Your task to perform on an android device: What's the weather today? Image 0: 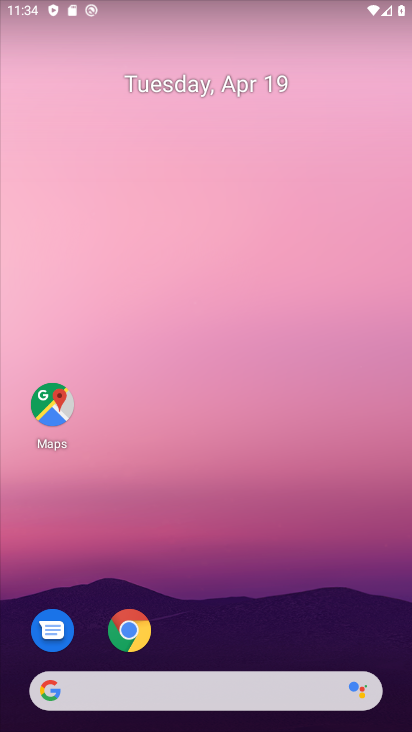
Step 0: drag from (293, 604) to (282, 59)
Your task to perform on an android device: What's the weather today? Image 1: 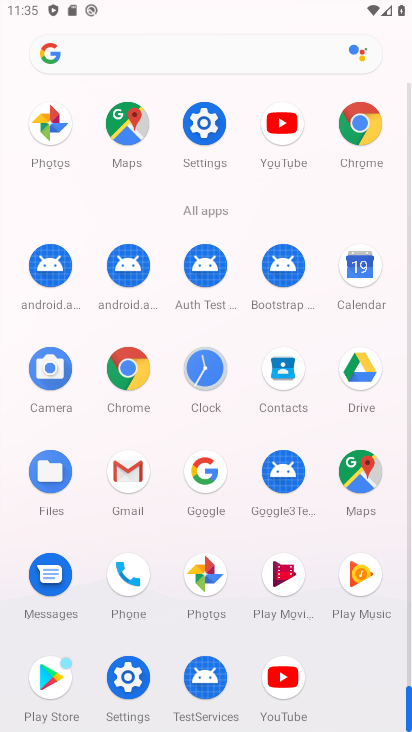
Step 1: click (138, 365)
Your task to perform on an android device: What's the weather today? Image 2: 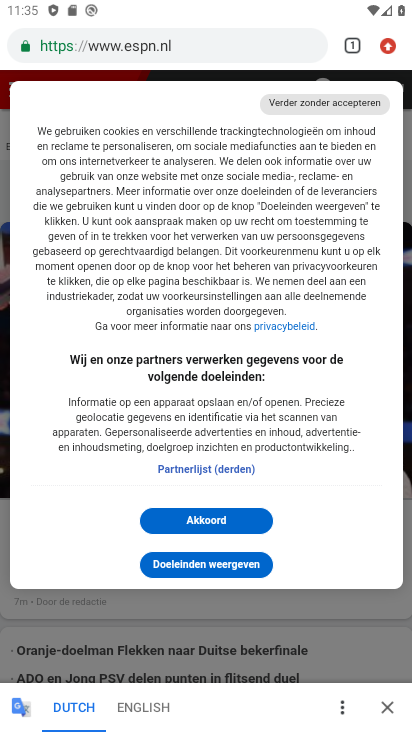
Step 2: click (217, 46)
Your task to perform on an android device: What's the weather today? Image 3: 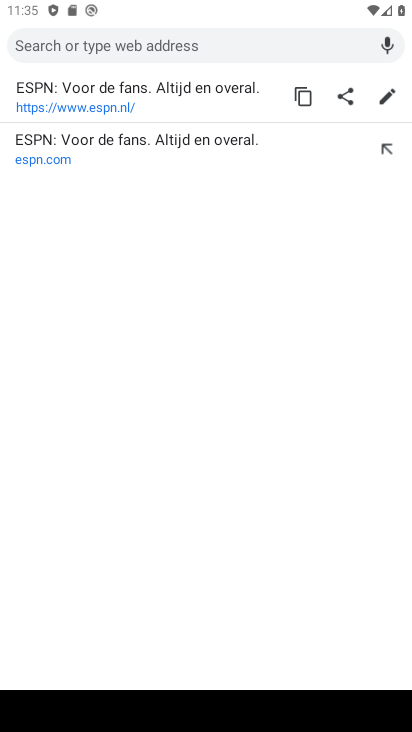
Step 3: type "weather today?"
Your task to perform on an android device: What's the weather today? Image 4: 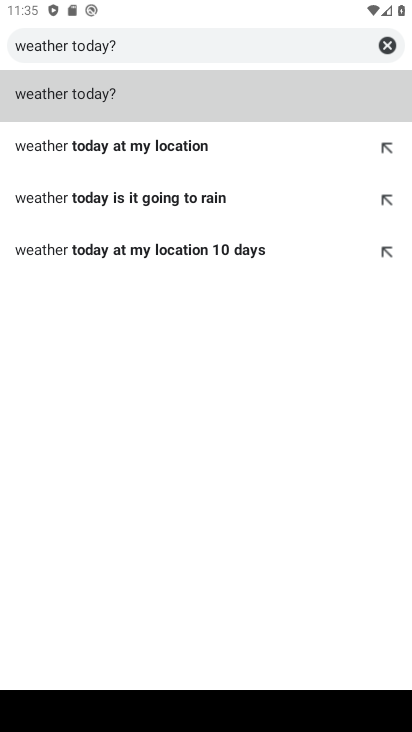
Step 4: click (96, 87)
Your task to perform on an android device: What's the weather today? Image 5: 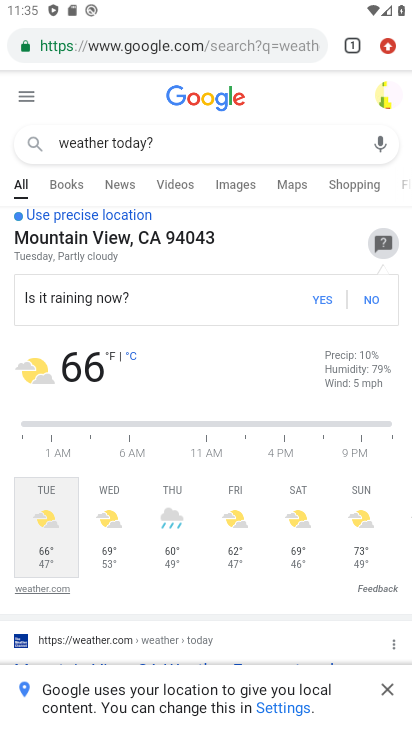
Step 5: task complete